Your task to perform on an android device: Open location settings Image 0: 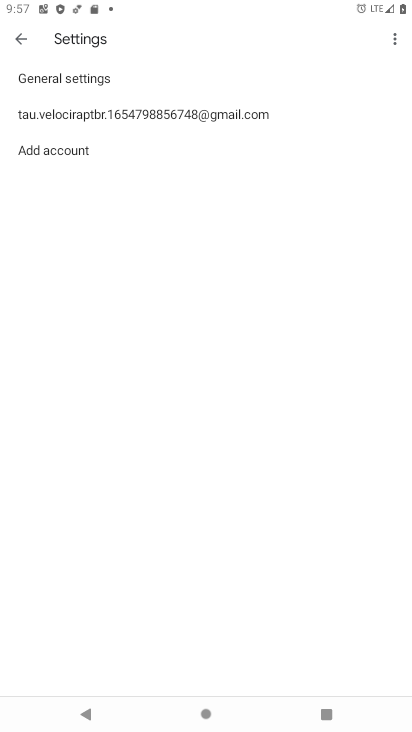
Step 0: press home button
Your task to perform on an android device: Open location settings Image 1: 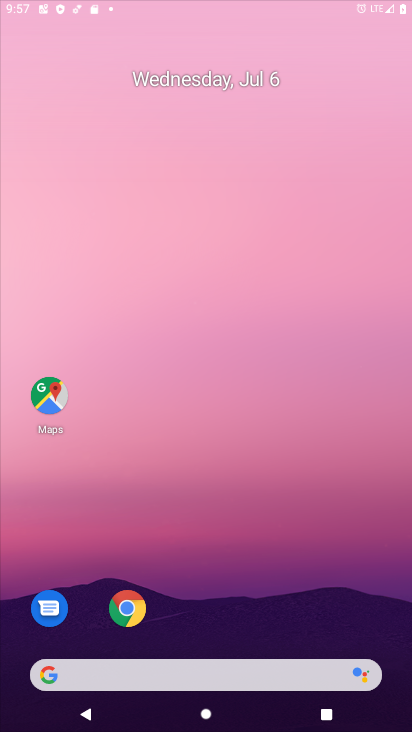
Step 1: drag from (382, 623) to (201, 2)
Your task to perform on an android device: Open location settings Image 2: 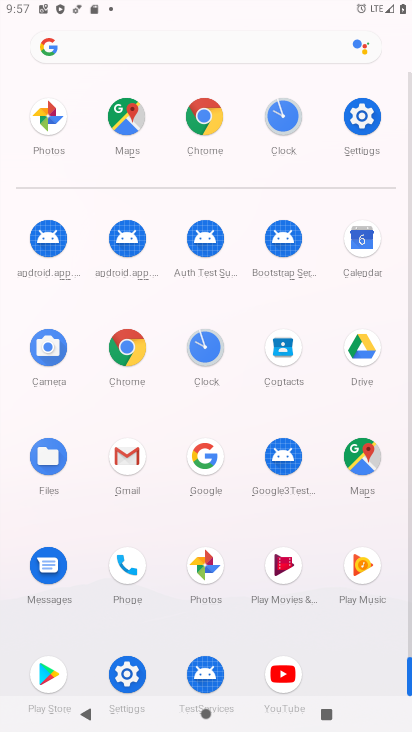
Step 2: click (354, 139)
Your task to perform on an android device: Open location settings Image 3: 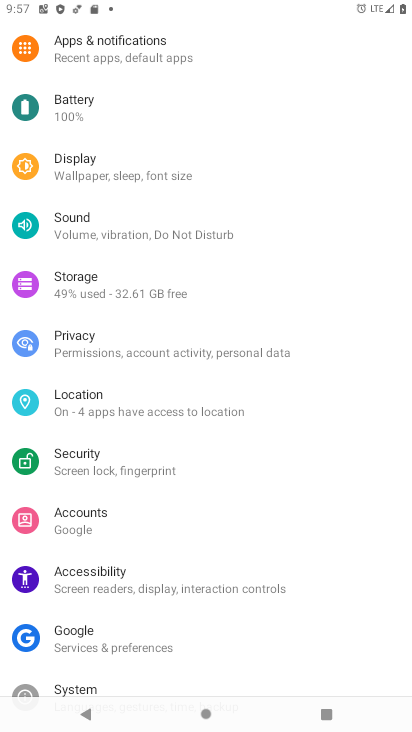
Step 3: click (88, 405)
Your task to perform on an android device: Open location settings Image 4: 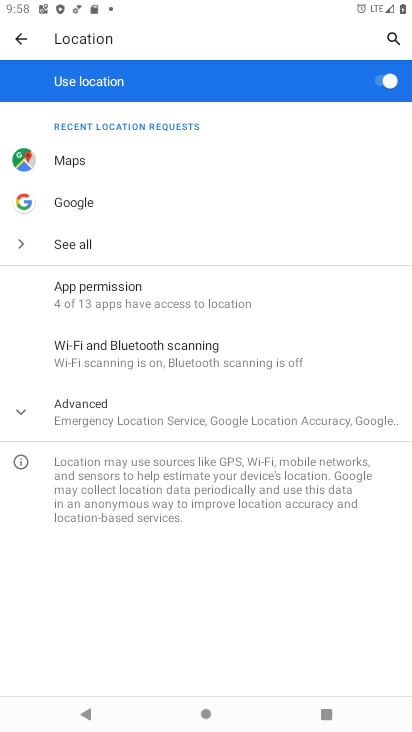
Step 4: task complete